Your task to perform on an android device: turn off data saver in the chrome app Image 0: 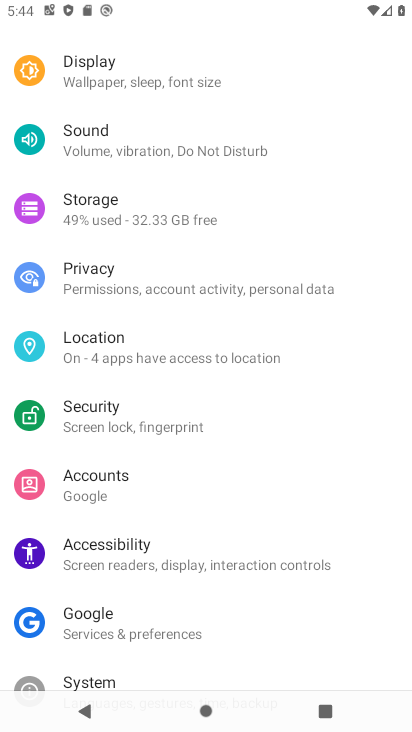
Step 0: press home button
Your task to perform on an android device: turn off data saver in the chrome app Image 1: 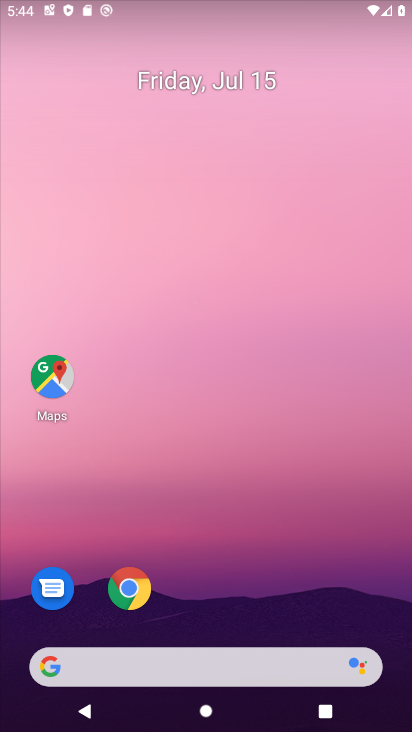
Step 1: drag from (267, 555) to (306, 5)
Your task to perform on an android device: turn off data saver in the chrome app Image 2: 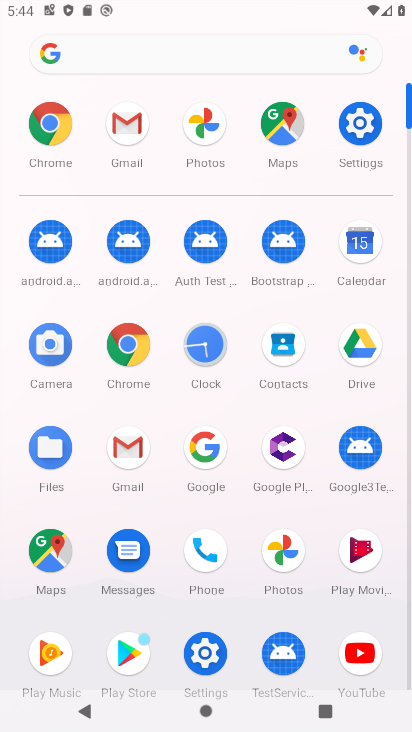
Step 2: click (129, 348)
Your task to perform on an android device: turn off data saver in the chrome app Image 3: 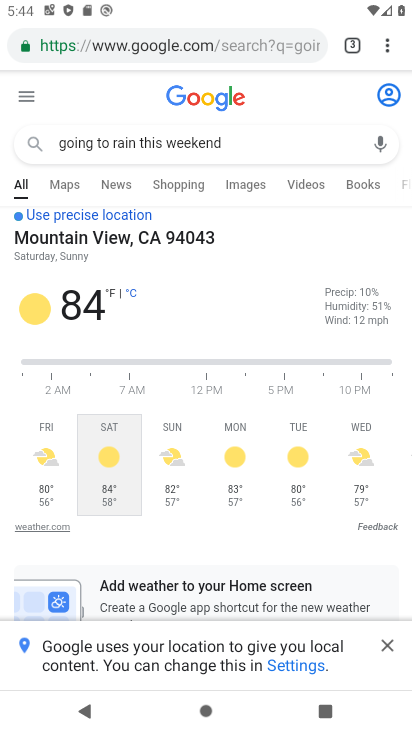
Step 3: click (391, 37)
Your task to perform on an android device: turn off data saver in the chrome app Image 4: 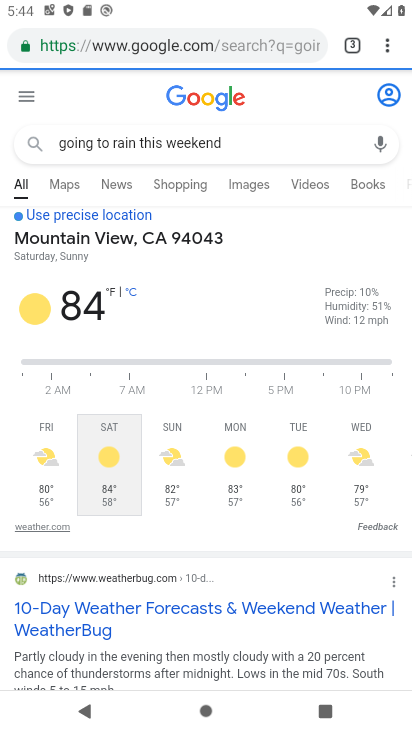
Step 4: drag from (381, 44) to (282, 477)
Your task to perform on an android device: turn off data saver in the chrome app Image 5: 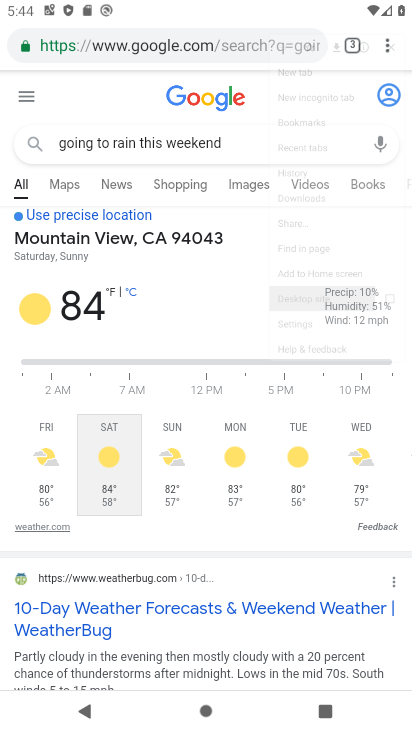
Step 5: click (259, 495)
Your task to perform on an android device: turn off data saver in the chrome app Image 6: 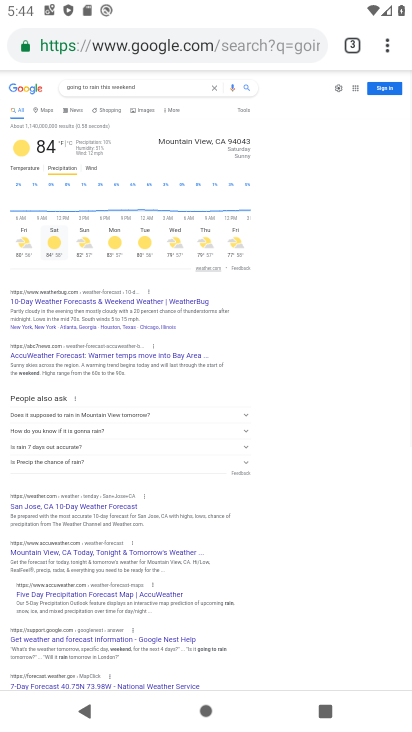
Step 6: drag from (385, 50) to (264, 534)
Your task to perform on an android device: turn off data saver in the chrome app Image 7: 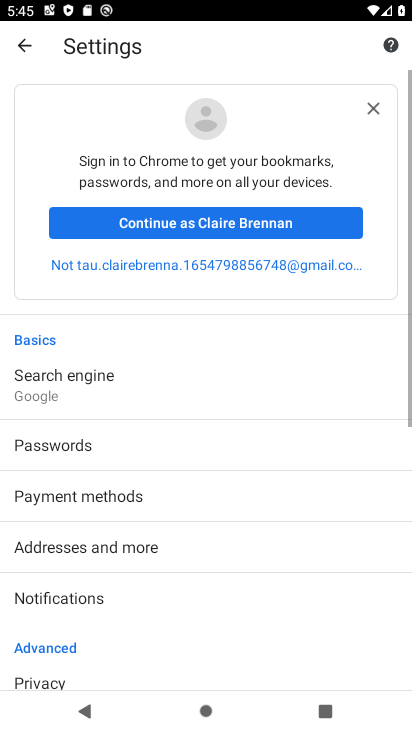
Step 7: drag from (119, 553) to (165, 37)
Your task to perform on an android device: turn off data saver in the chrome app Image 8: 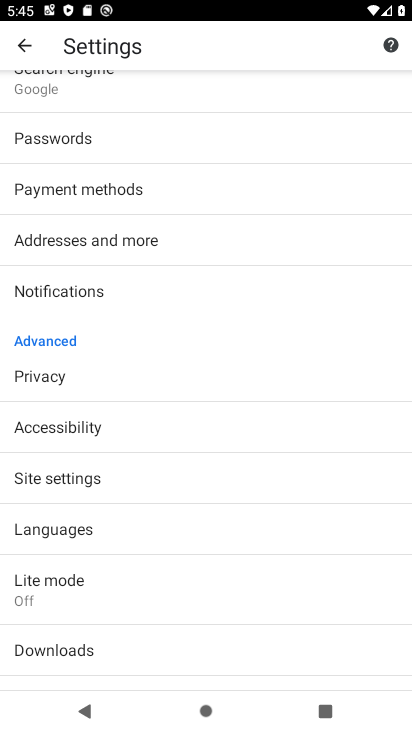
Step 8: click (95, 579)
Your task to perform on an android device: turn off data saver in the chrome app Image 9: 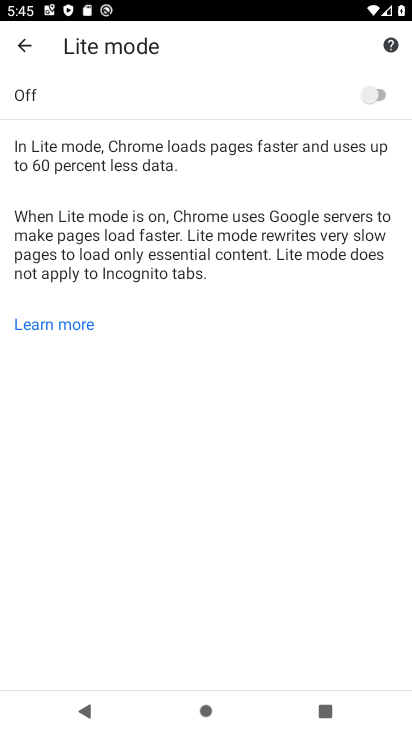
Step 9: task complete